Your task to perform on an android device: snooze an email in the gmail app Image 0: 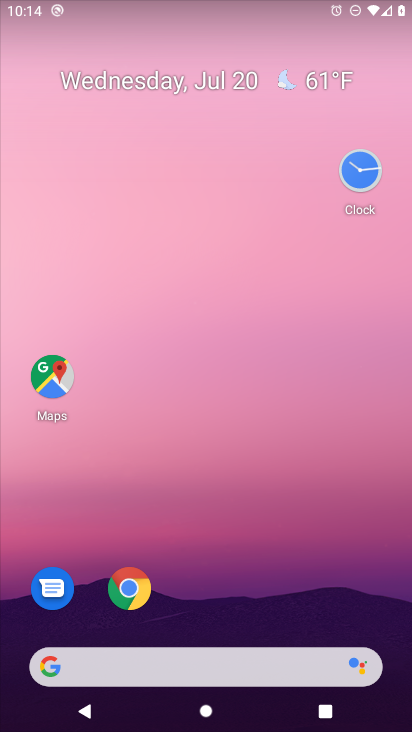
Step 0: drag from (40, 698) to (212, 145)
Your task to perform on an android device: snooze an email in the gmail app Image 1: 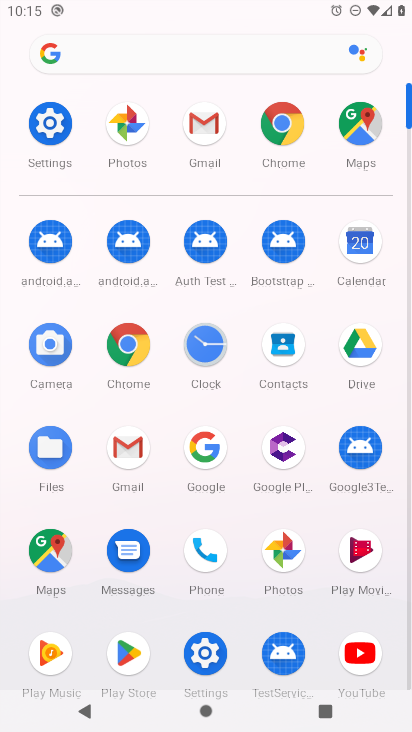
Step 1: click (129, 457)
Your task to perform on an android device: snooze an email in the gmail app Image 2: 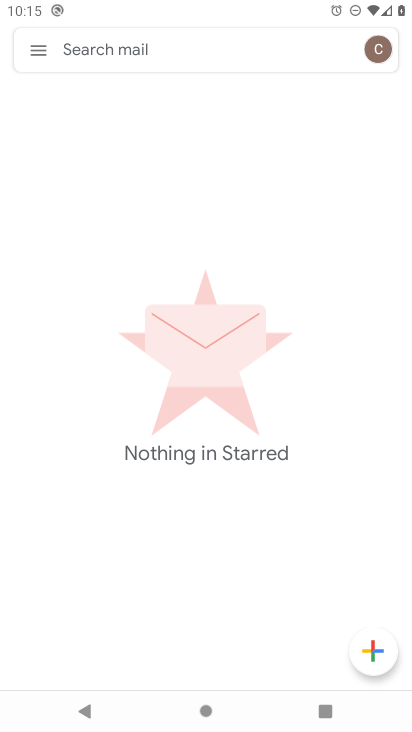
Step 2: click (36, 56)
Your task to perform on an android device: snooze an email in the gmail app Image 3: 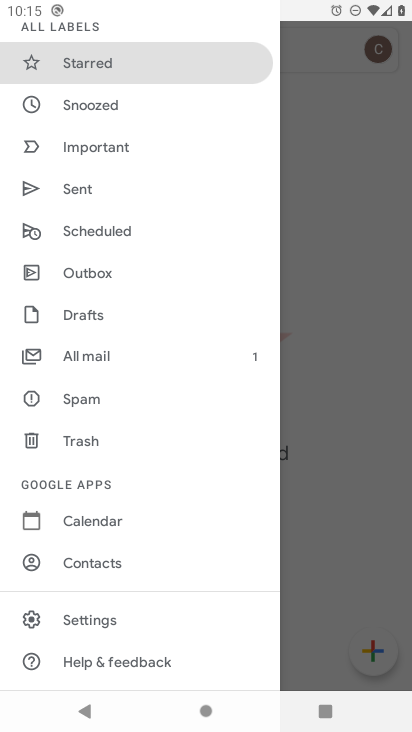
Step 3: click (88, 107)
Your task to perform on an android device: snooze an email in the gmail app Image 4: 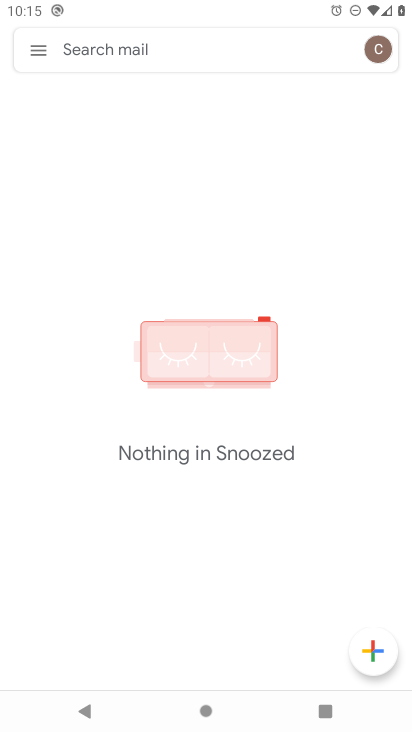
Step 4: task complete